Your task to perform on an android device: toggle notification dots Image 0: 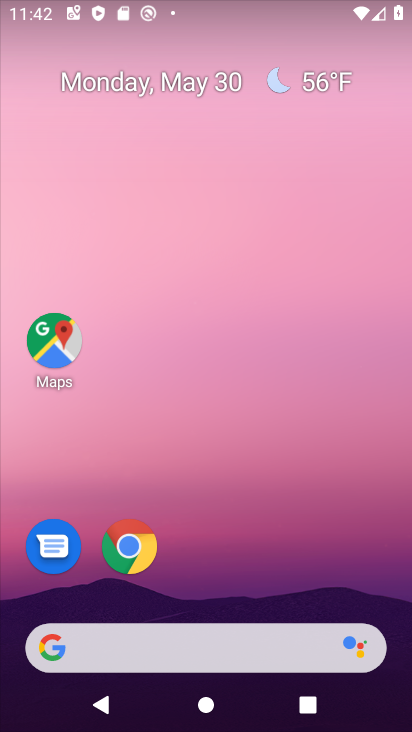
Step 0: drag from (264, 575) to (287, 49)
Your task to perform on an android device: toggle notification dots Image 1: 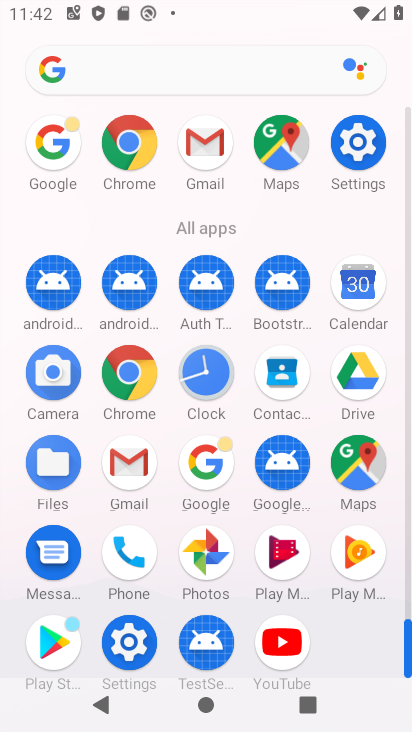
Step 1: click (361, 143)
Your task to perform on an android device: toggle notification dots Image 2: 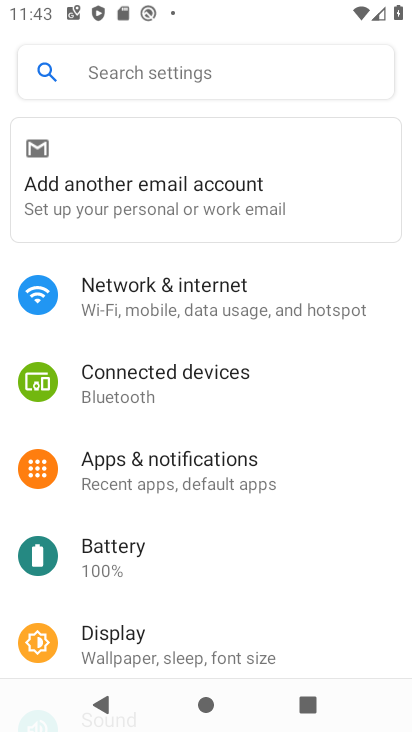
Step 2: click (224, 463)
Your task to perform on an android device: toggle notification dots Image 3: 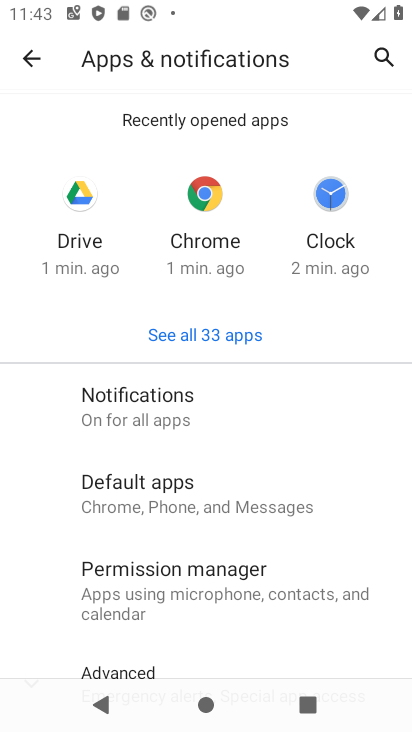
Step 3: click (164, 408)
Your task to perform on an android device: toggle notification dots Image 4: 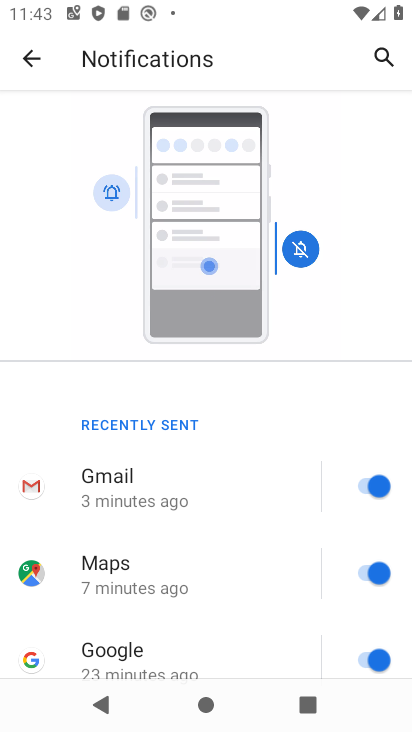
Step 4: drag from (144, 534) to (233, 366)
Your task to perform on an android device: toggle notification dots Image 5: 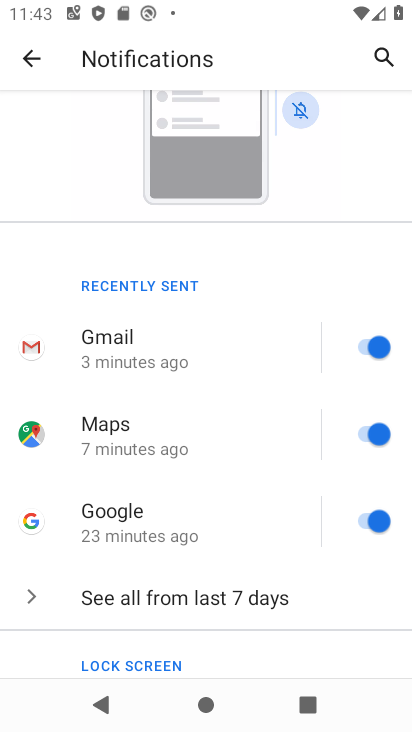
Step 5: drag from (182, 561) to (214, 395)
Your task to perform on an android device: toggle notification dots Image 6: 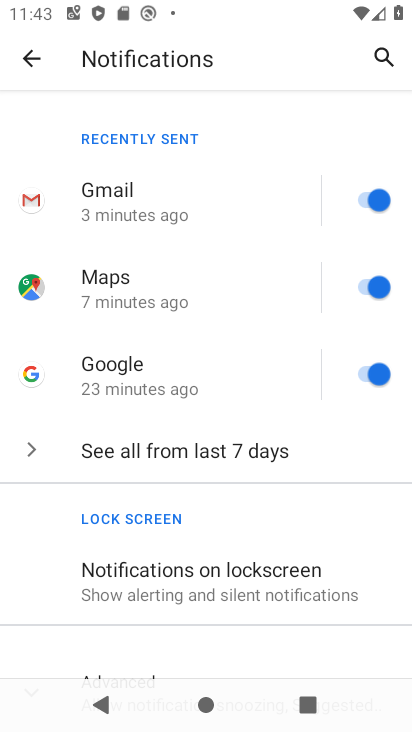
Step 6: drag from (244, 591) to (296, 479)
Your task to perform on an android device: toggle notification dots Image 7: 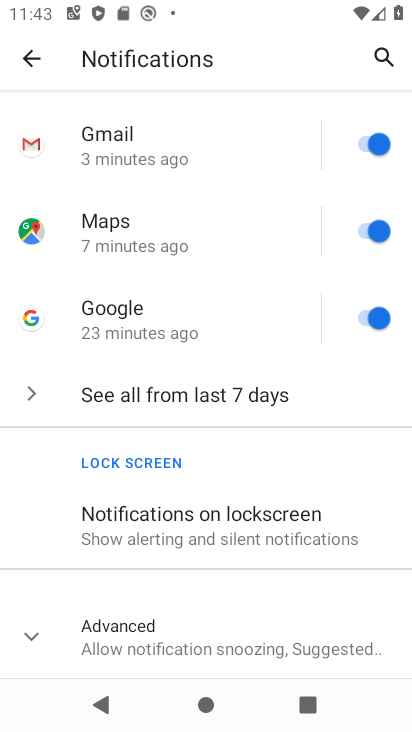
Step 7: click (231, 640)
Your task to perform on an android device: toggle notification dots Image 8: 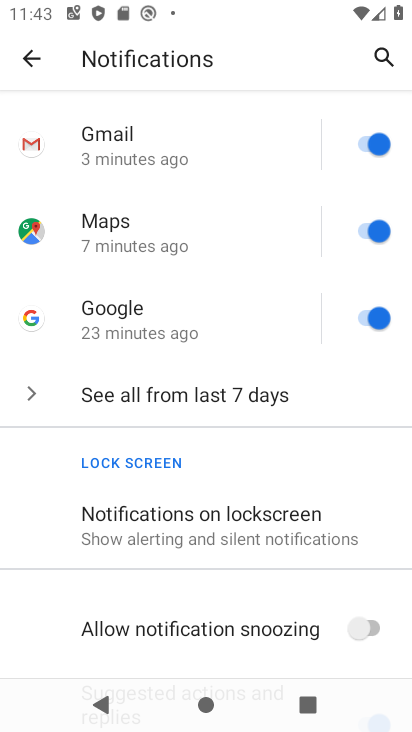
Step 8: drag from (184, 595) to (253, 491)
Your task to perform on an android device: toggle notification dots Image 9: 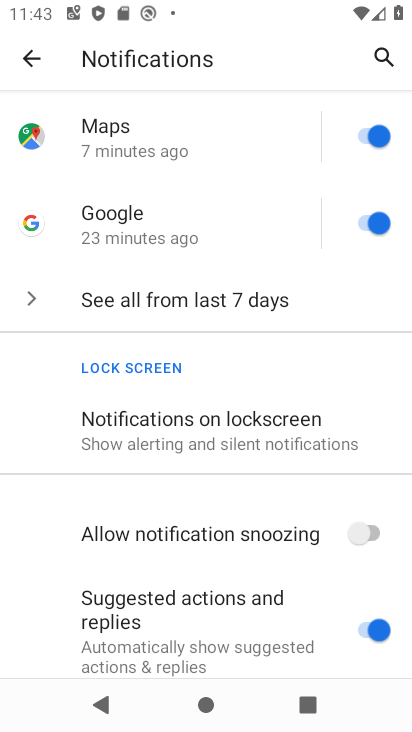
Step 9: drag from (232, 623) to (273, 524)
Your task to perform on an android device: toggle notification dots Image 10: 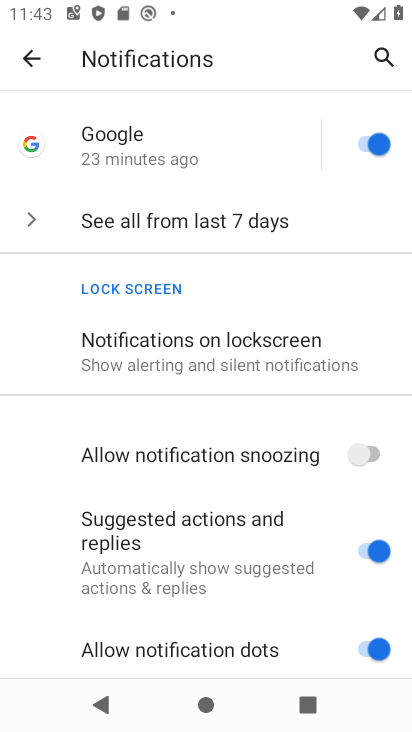
Step 10: click (378, 654)
Your task to perform on an android device: toggle notification dots Image 11: 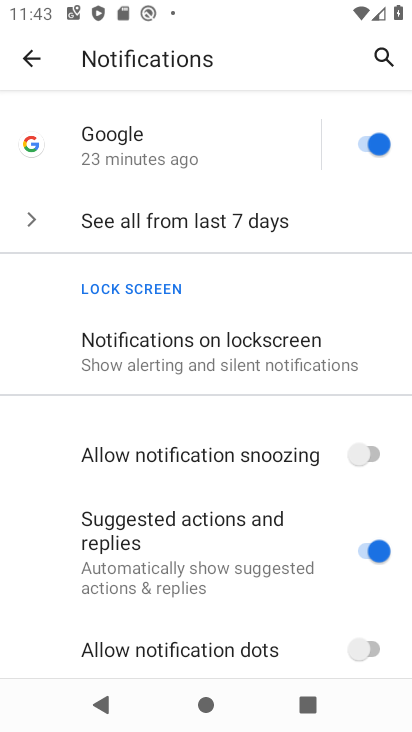
Step 11: task complete